Your task to perform on an android device: install app "Google Docs" Image 0: 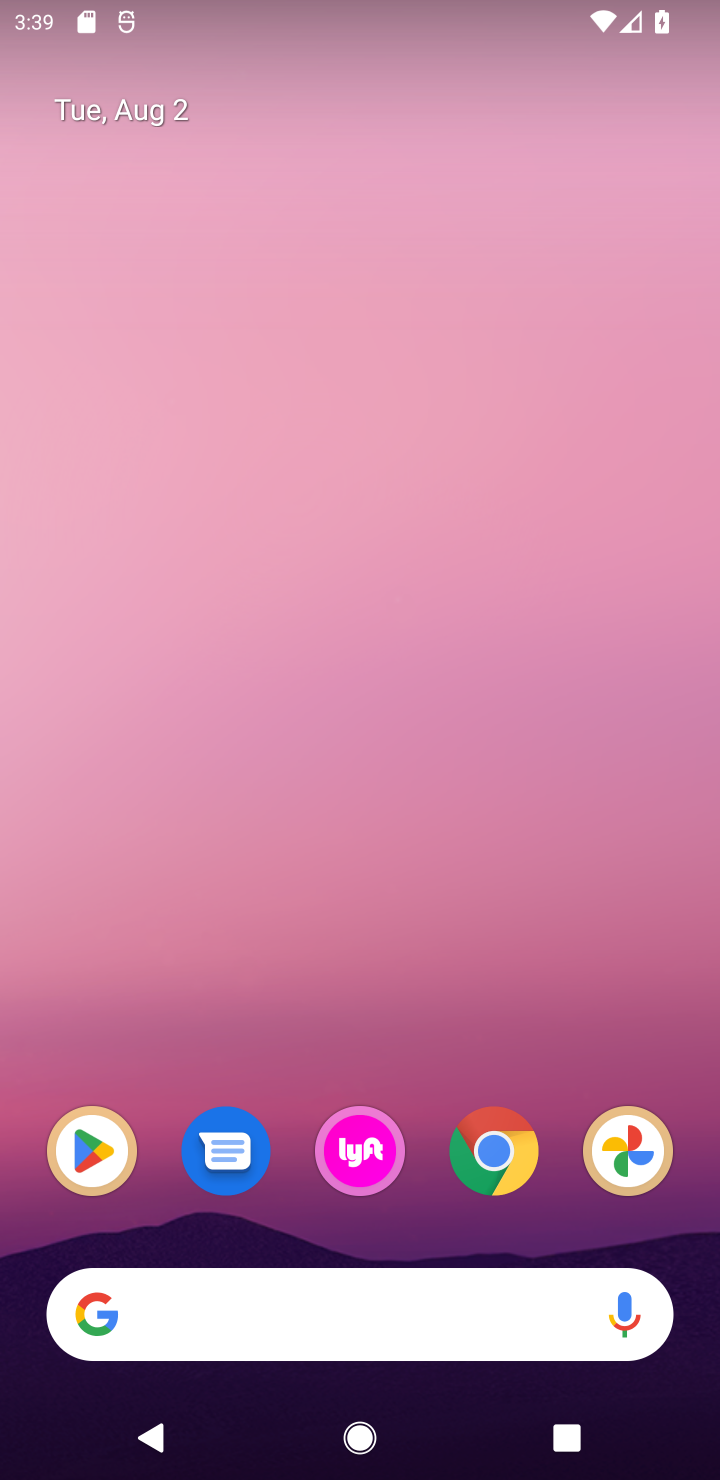
Step 0: drag from (442, 1455) to (330, 330)
Your task to perform on an android device: install app "Google Docs" Image 1: 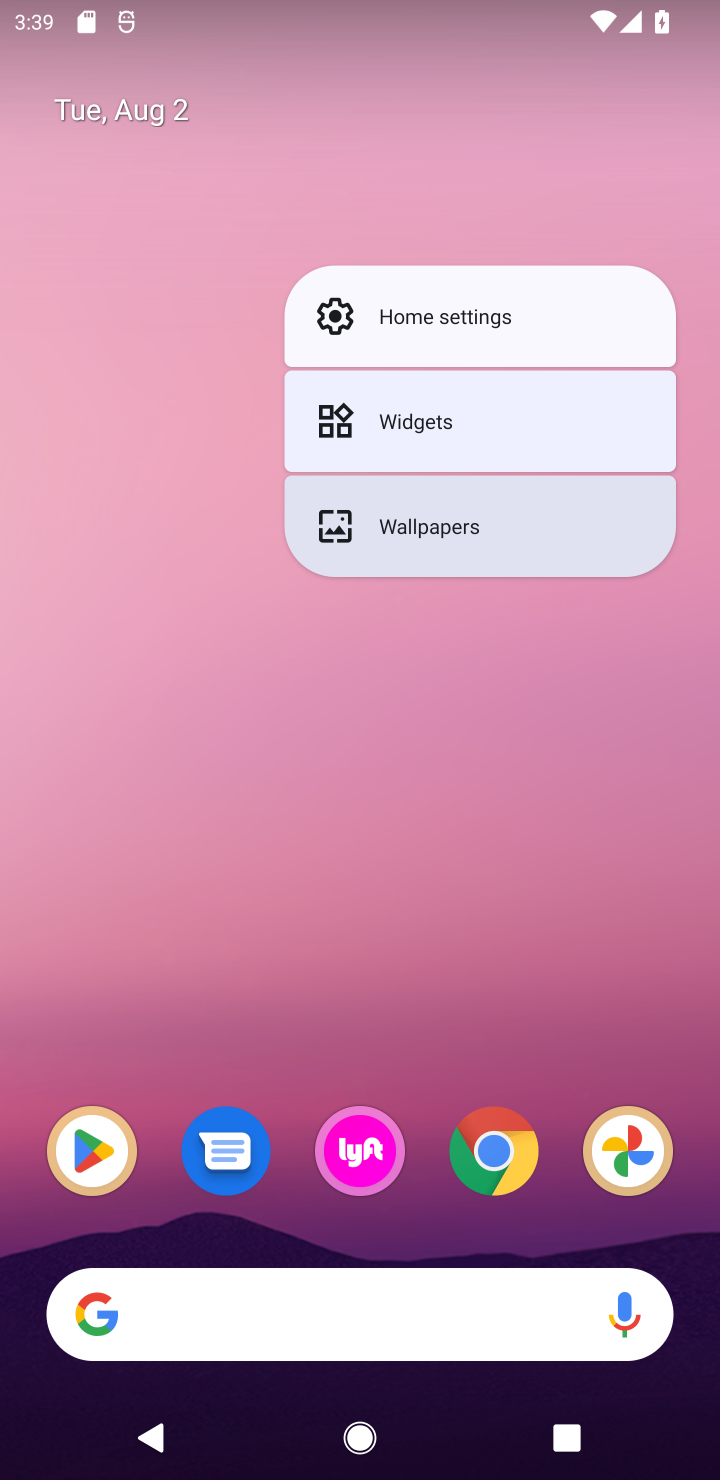
Step 1: click (460, 924)
Your task to perform on an android device: install app "Google Docs" Image 2: 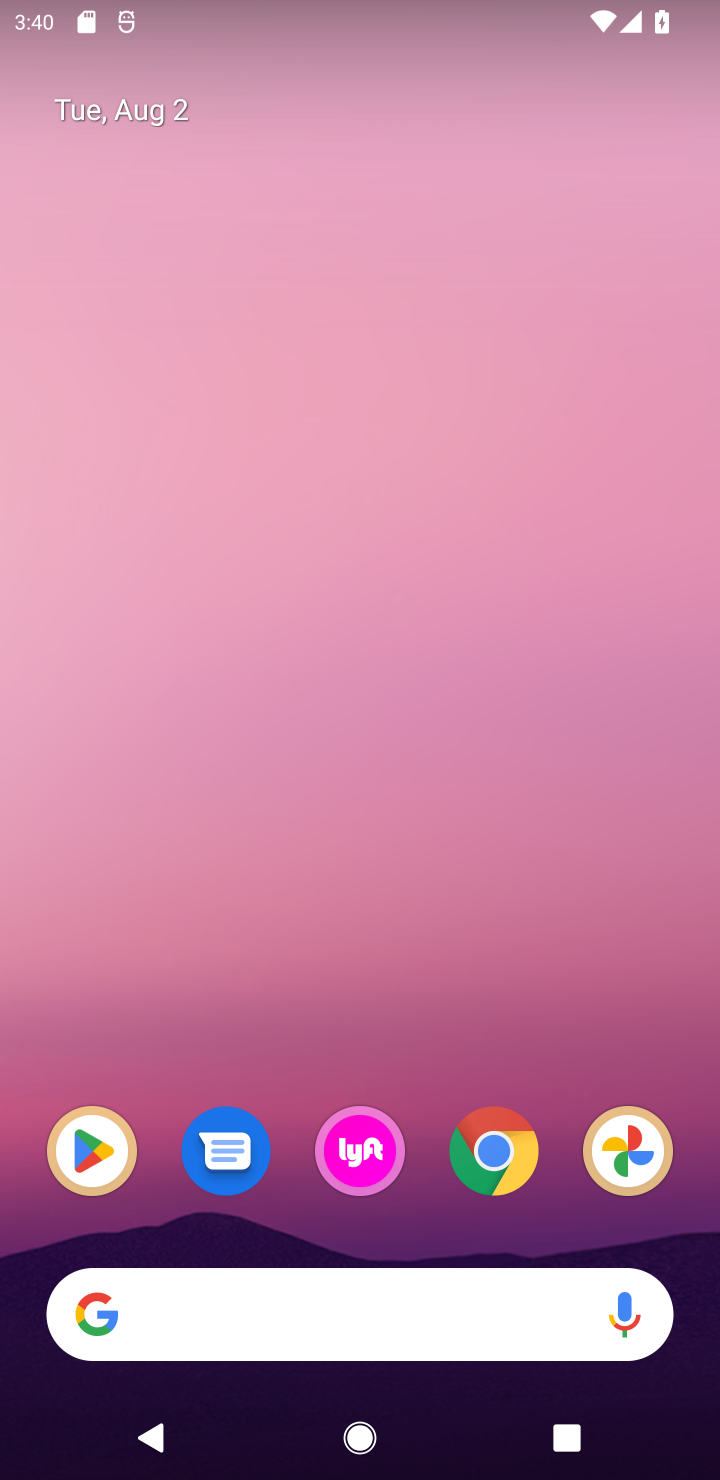
Step 2: drag from (419, 1447) to (420, 436)
Your task to perform on an android device: install app "Google Docs" Image 3: 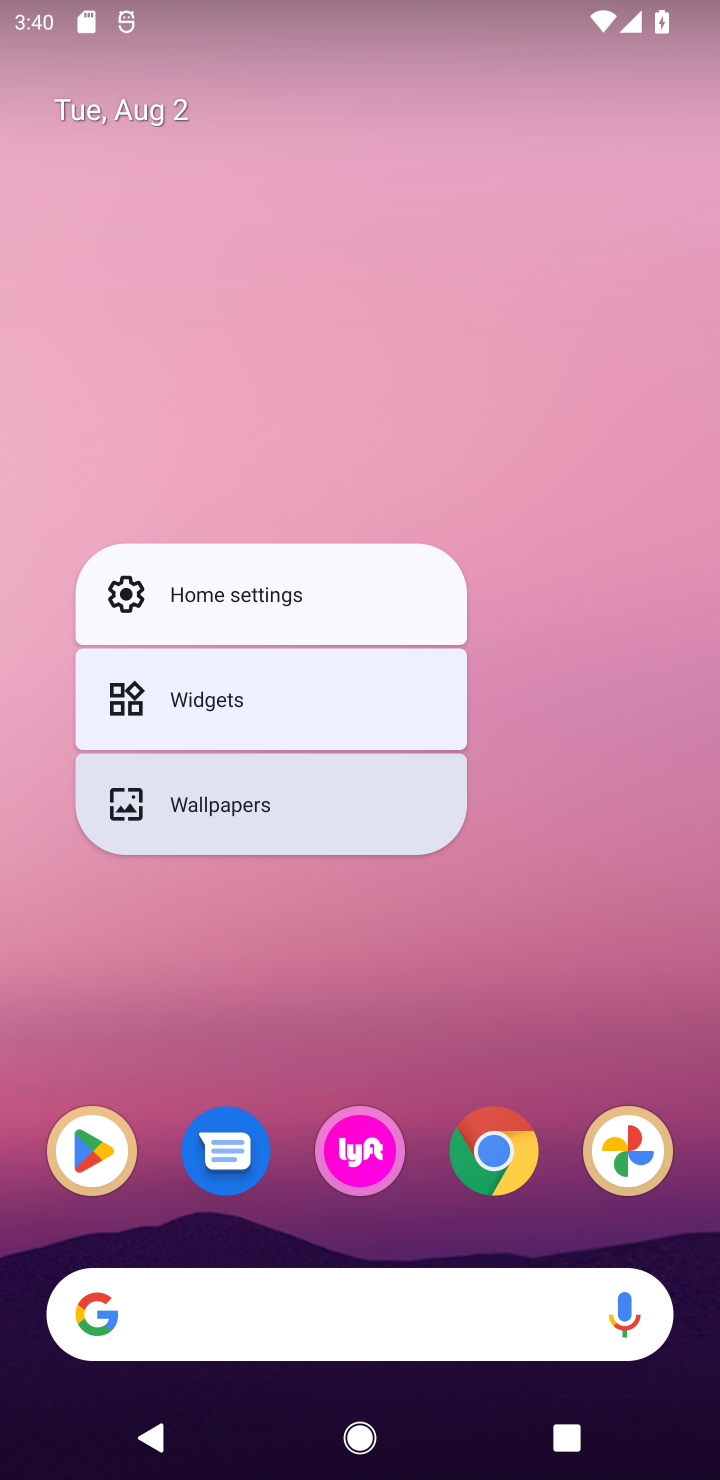
Step 3: click (462, 266)
Your task to perform on an android device: install app "Google Docs" Image 4: 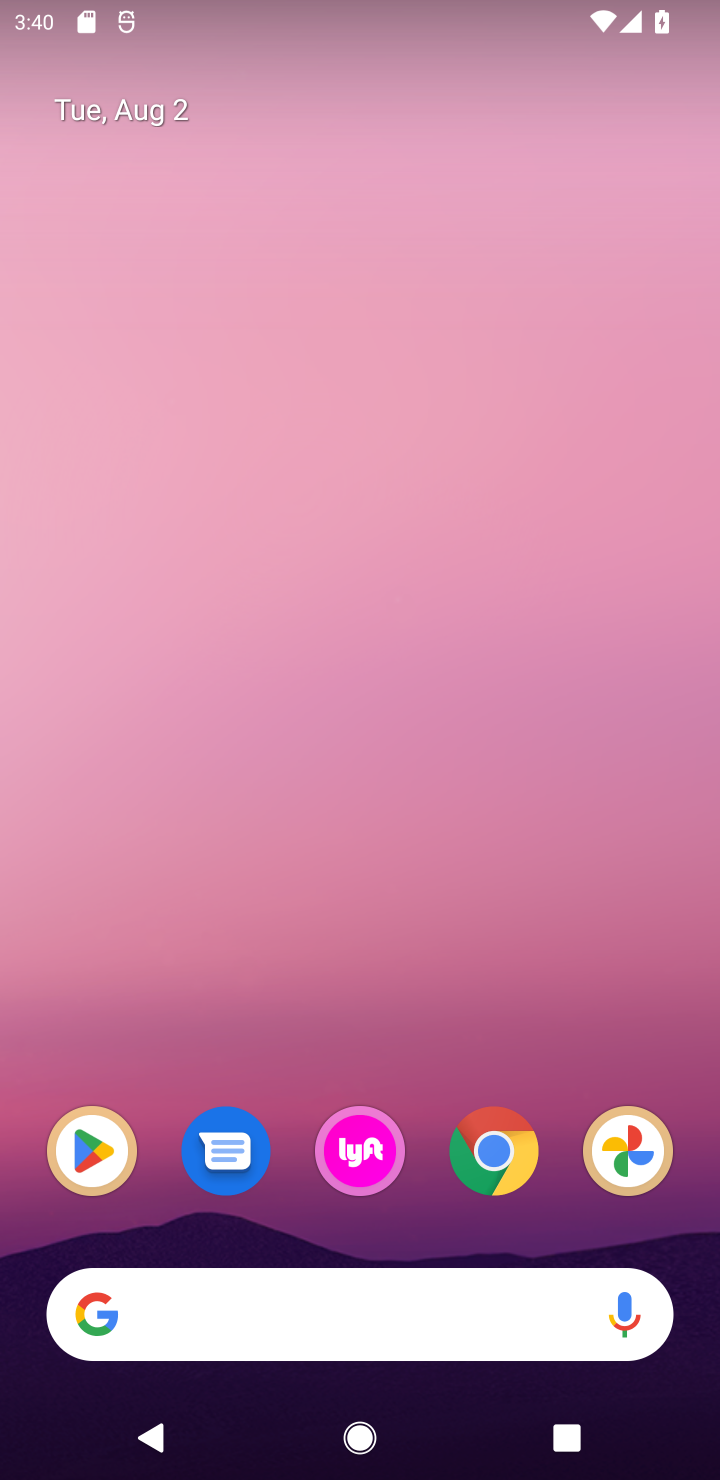
Step 4: drag from (422, 1243) to (414, 988)
Your task to perform on an android device: install app "Google Docs" Image 5: 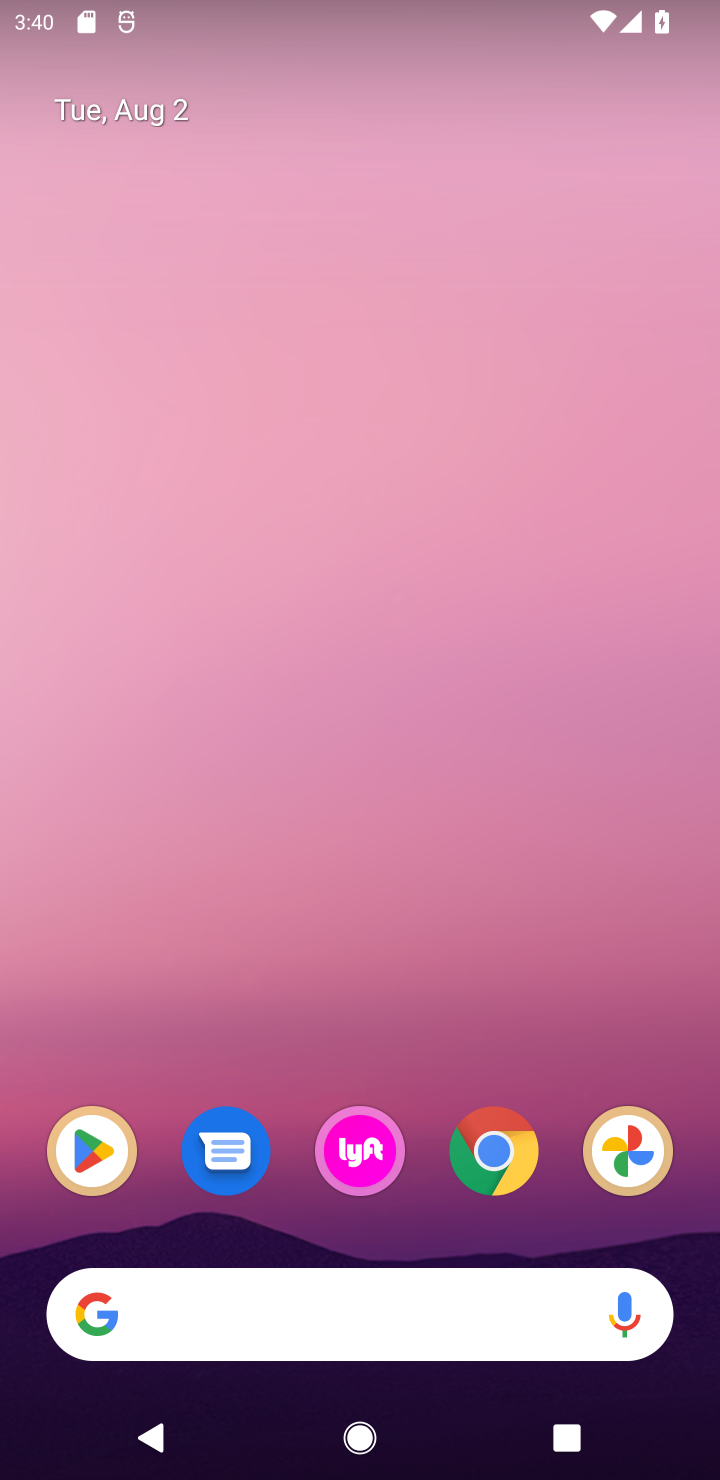
Step 5: drag from (402, 1471) to (352, 174)
Your task to perform on an android device: install app "Google Docs" Image 6: 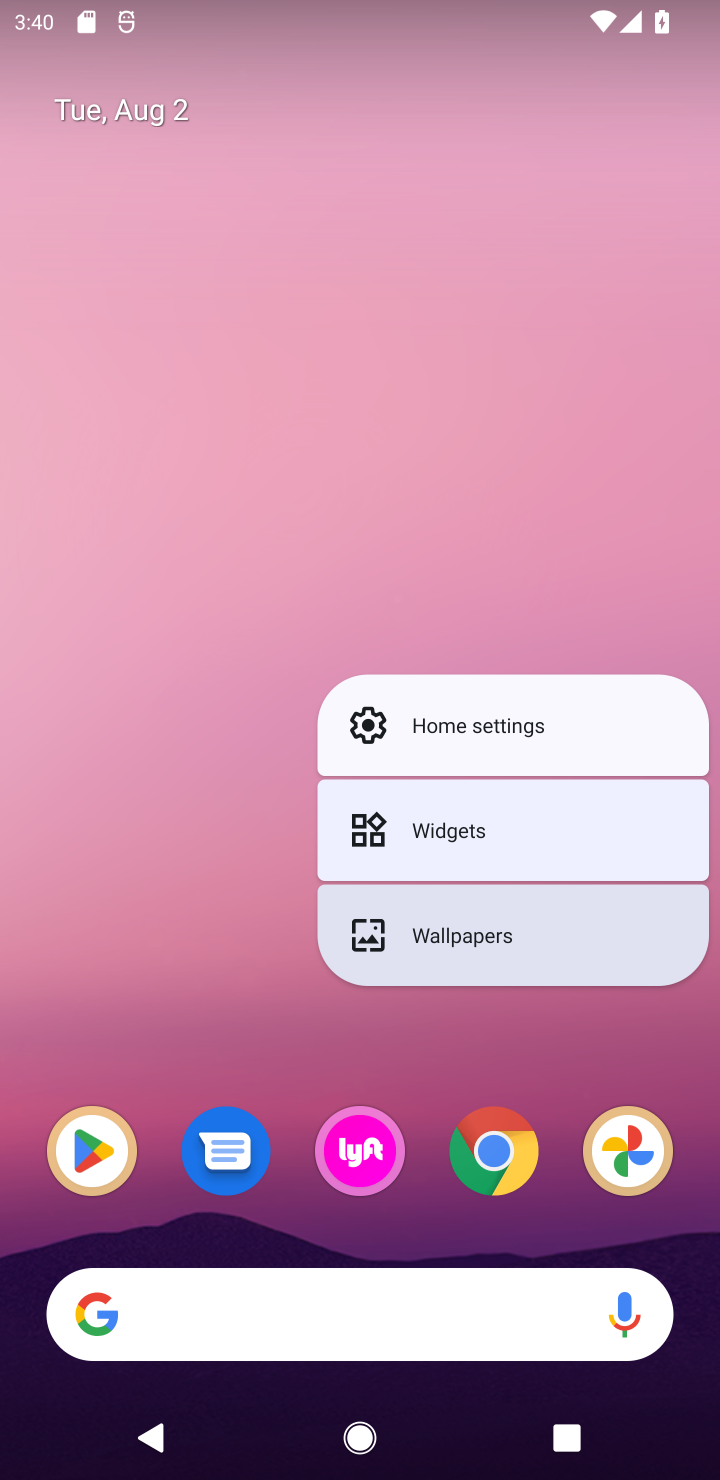
Step 6: click (297, 554)
Your task to perform on an android device: install app "Google Docs" Image 7: 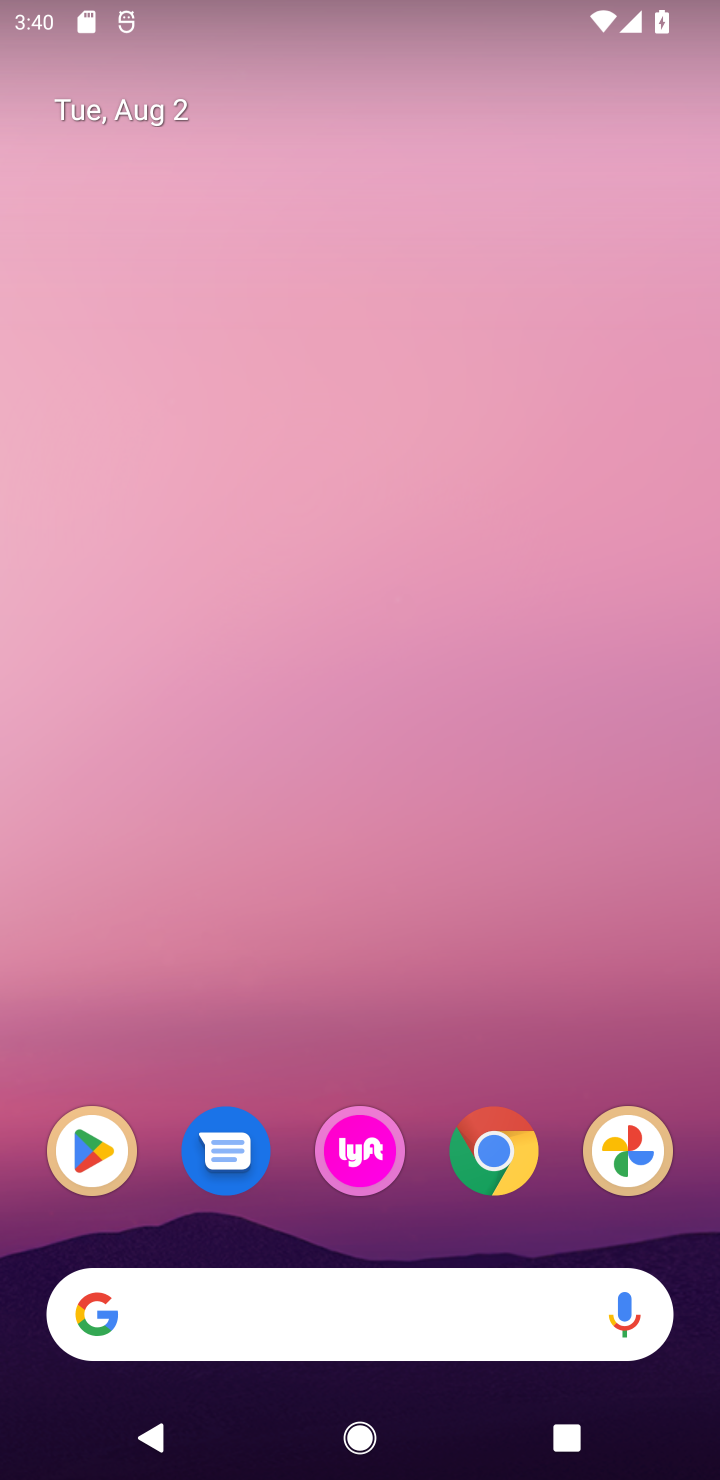
Step 7: drag from (407, 1331) to (418, 275)
Your task to perform on an android device: install app "Google Docs" Image 8: 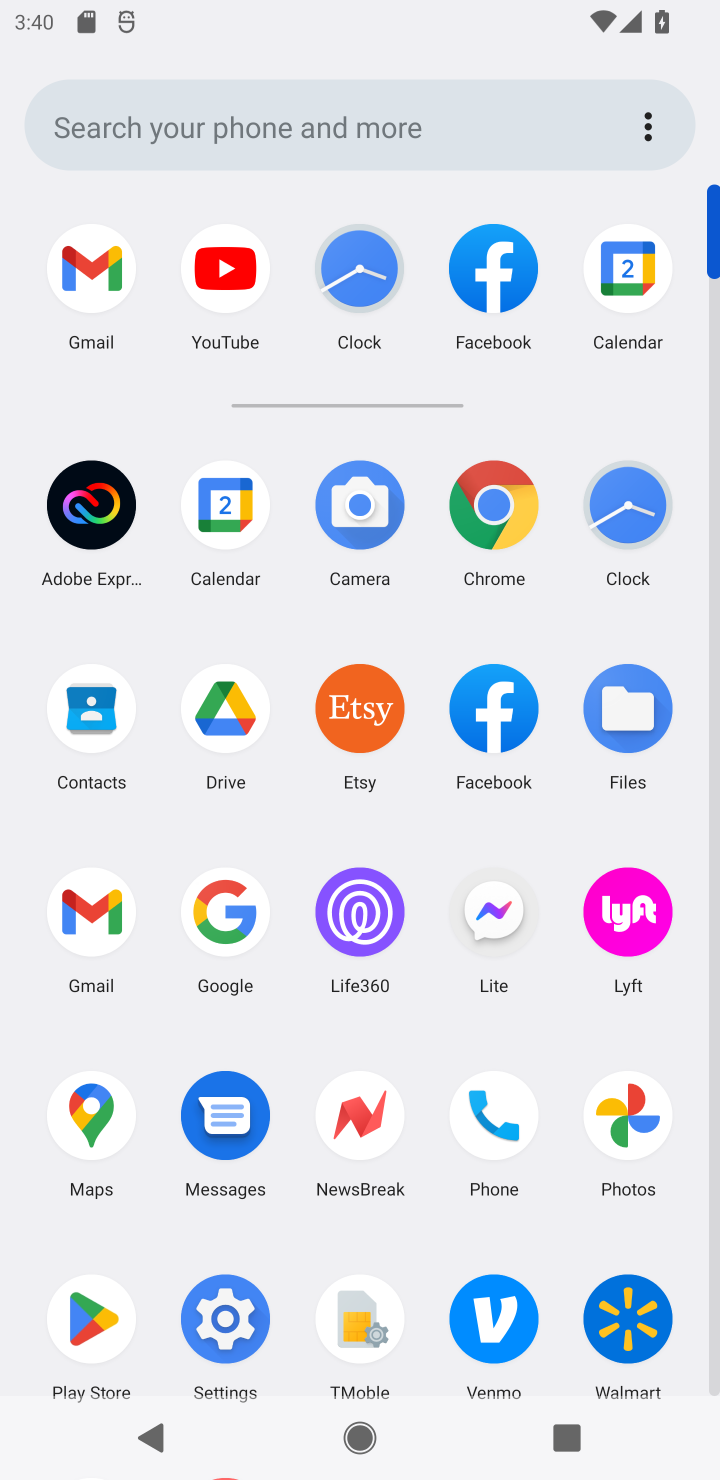
Step 8: click (100, 1304)
Your task to perform on an android device: install app "Google Docs" Image 9: 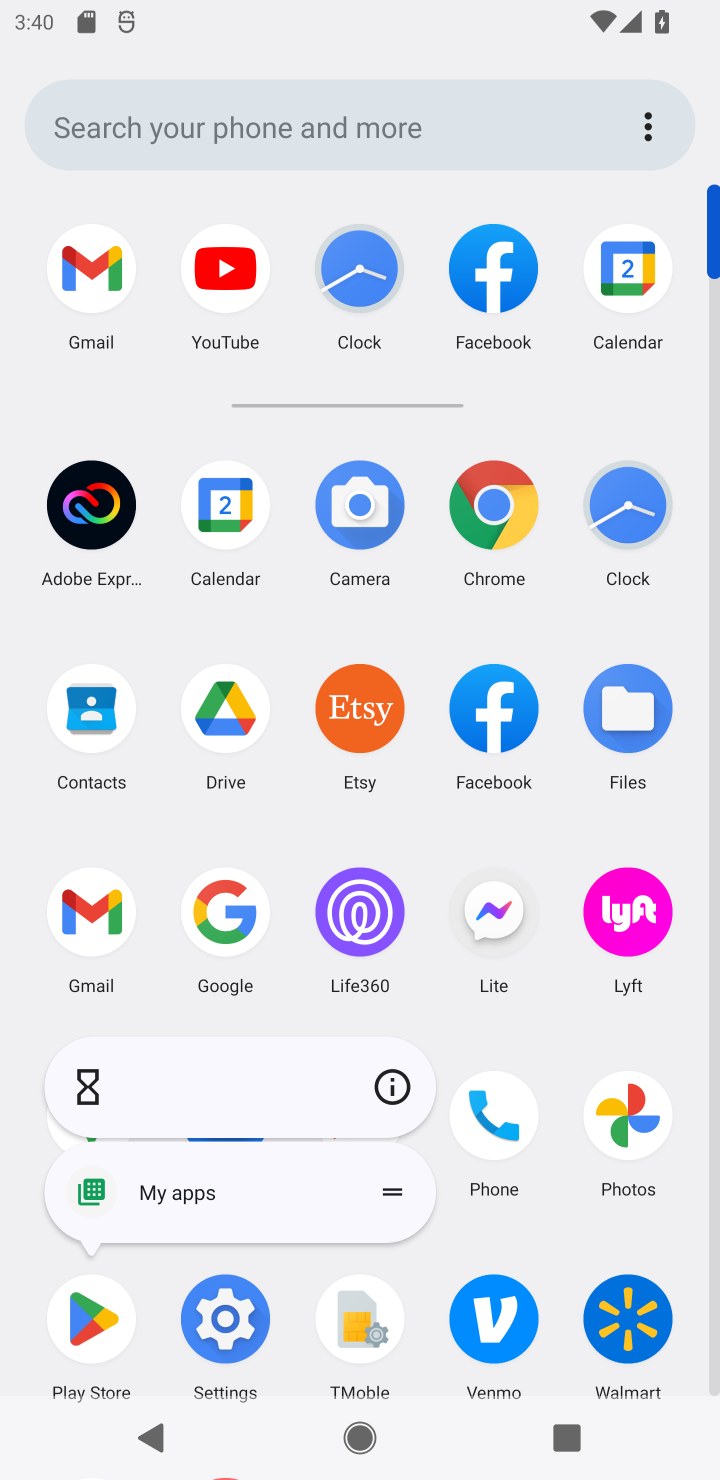
Step 9: click (94, 1316)
Your task to perform on an android device: install app "Google Docs" Image 10: 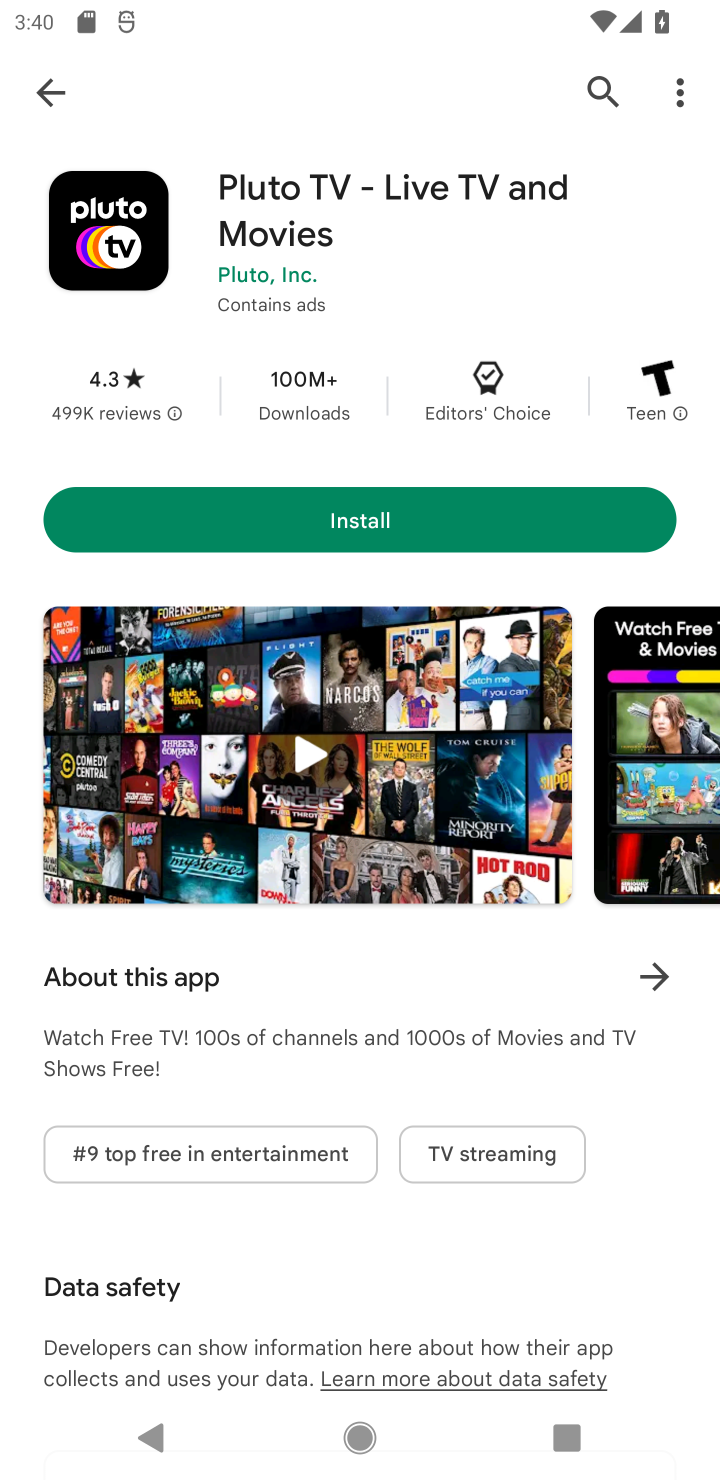
Step 10: click (603, 72)
Your task to perform on an android device: install app "Google Docs" Image 11: 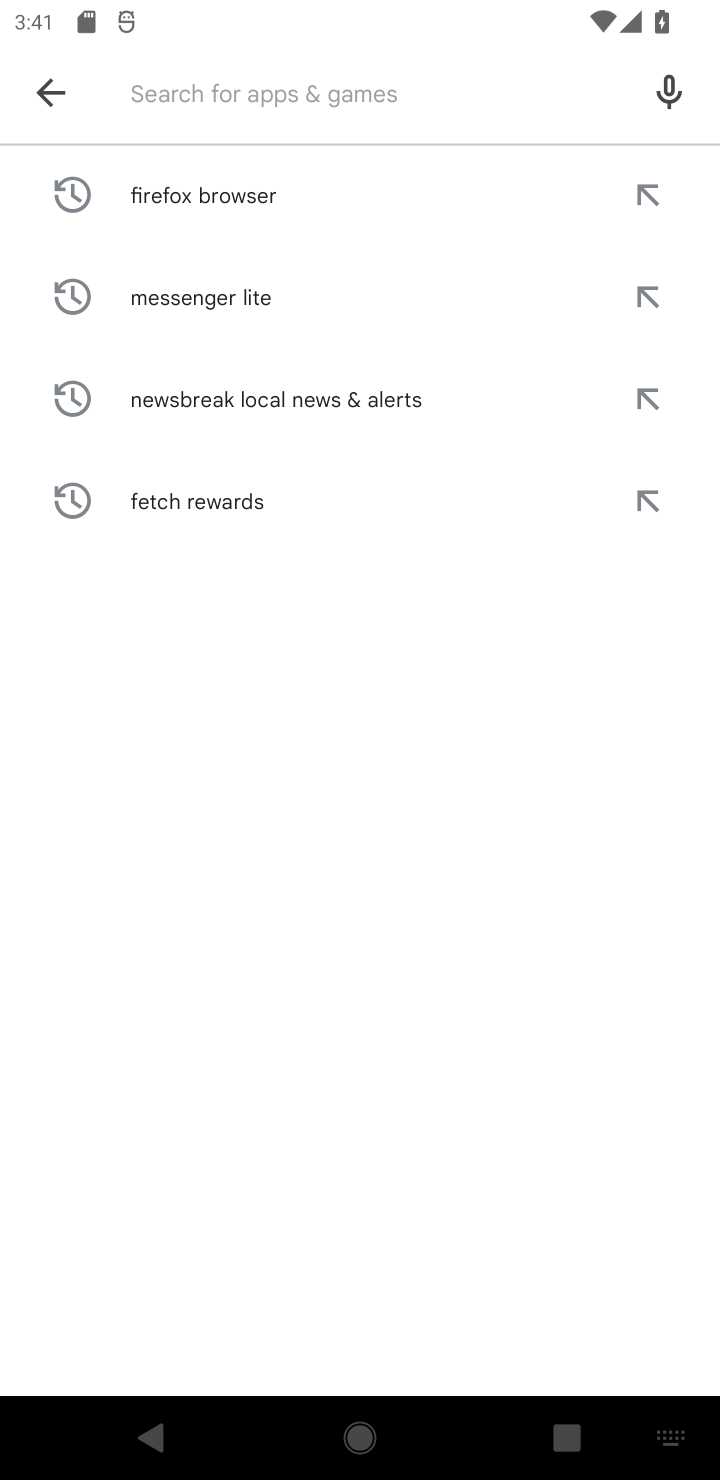
Step 11: type "Google Docs"
Your task to perform on an android device: install app "Google Docs" Image 12: 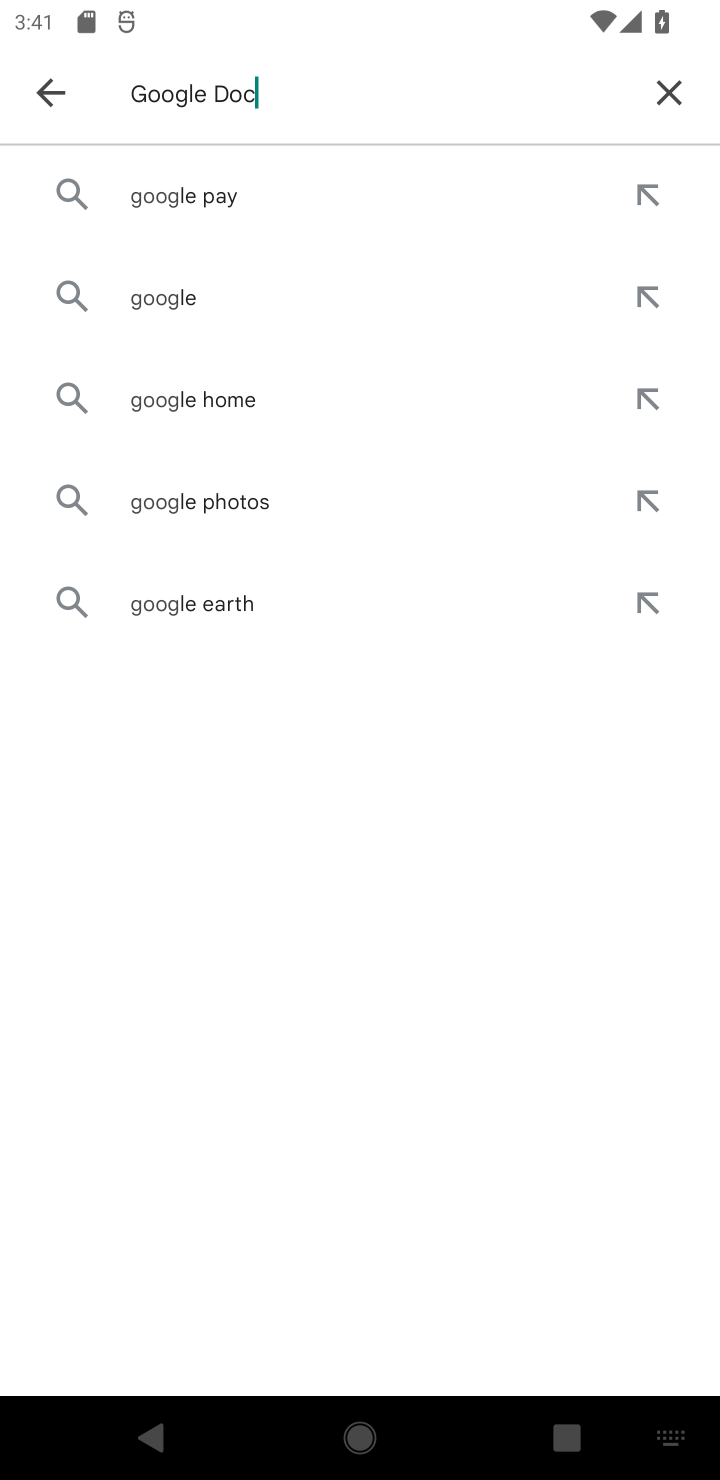
Step 12: type ""
Your task to perform on an android device: install app "Google Docs" Image 13: 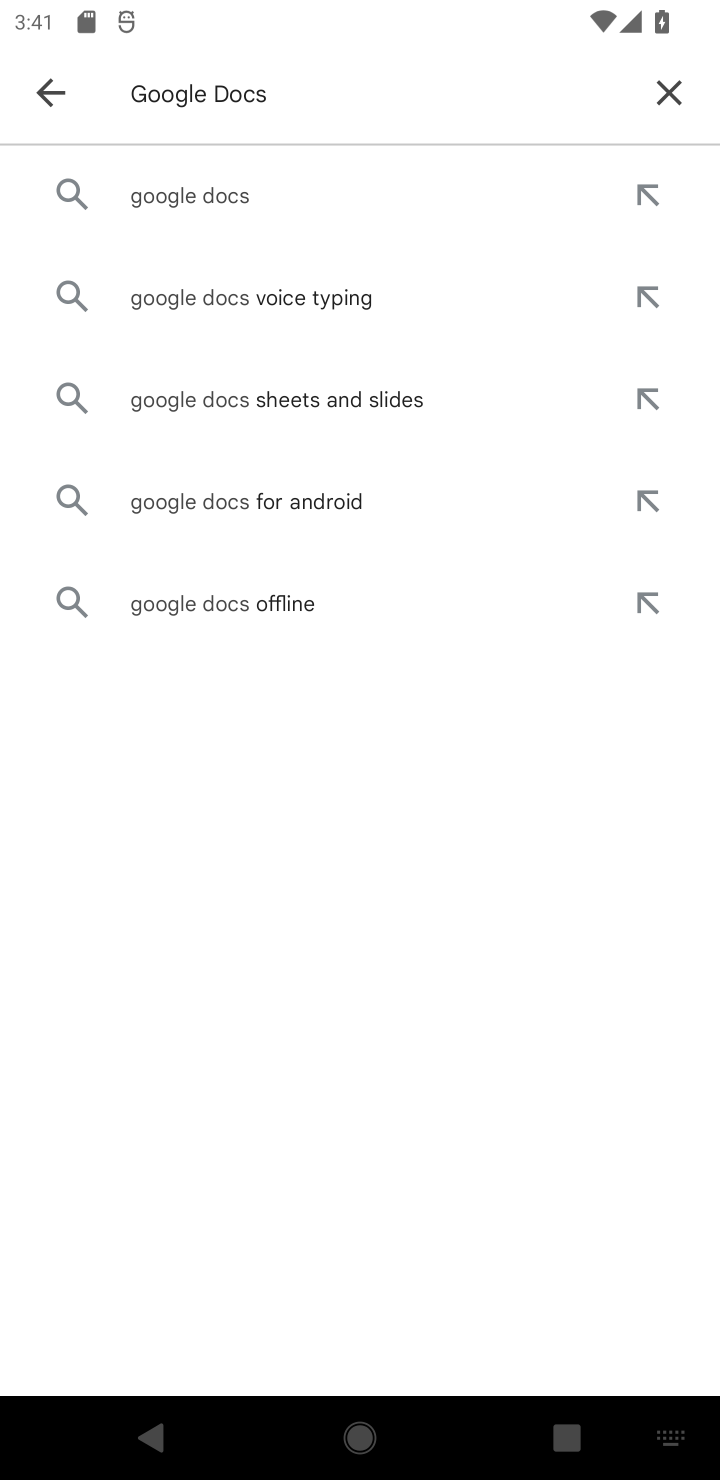
Step 13: click (199, 198)
Your task to perform on an android device: install app "Google Docs" Image 14: 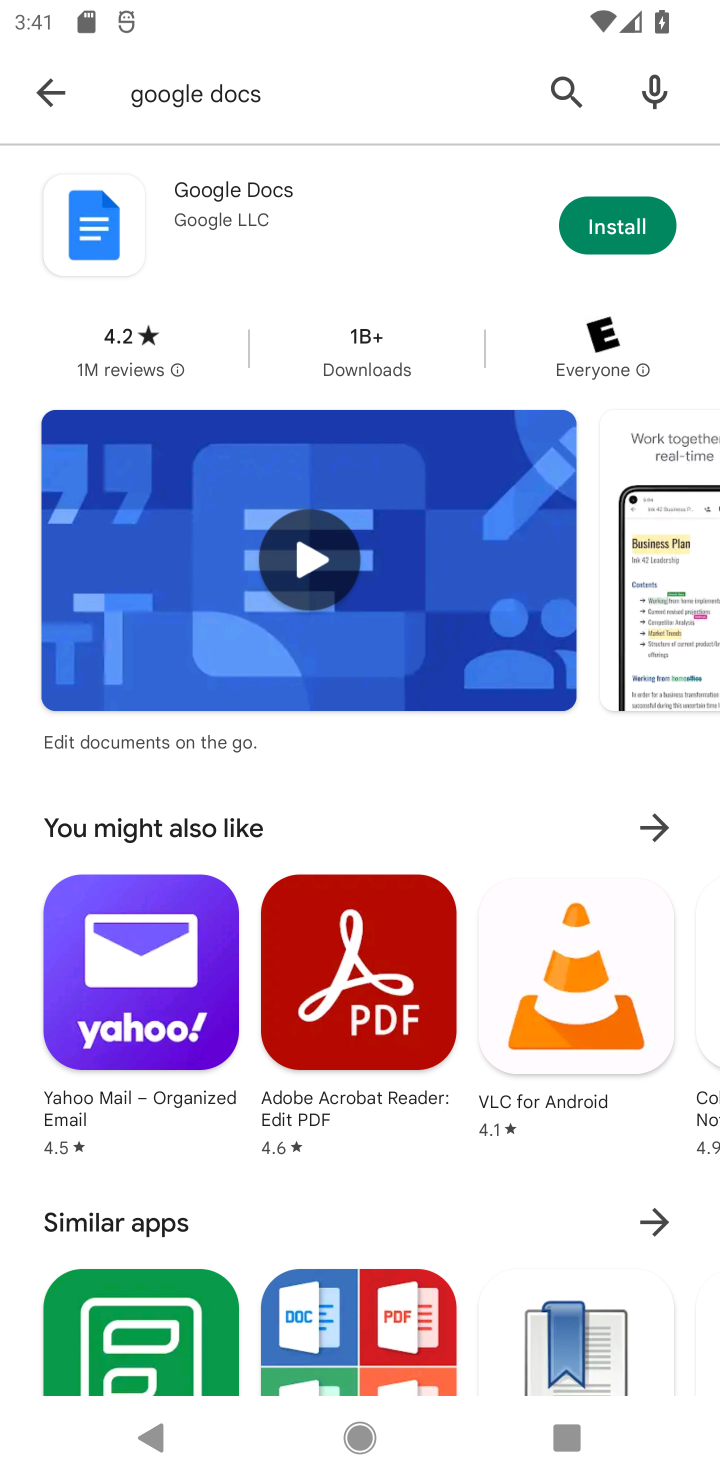
Step 14: click (633, 223)
Your task to perform on an android device: install app "Google Docs" Image 15: 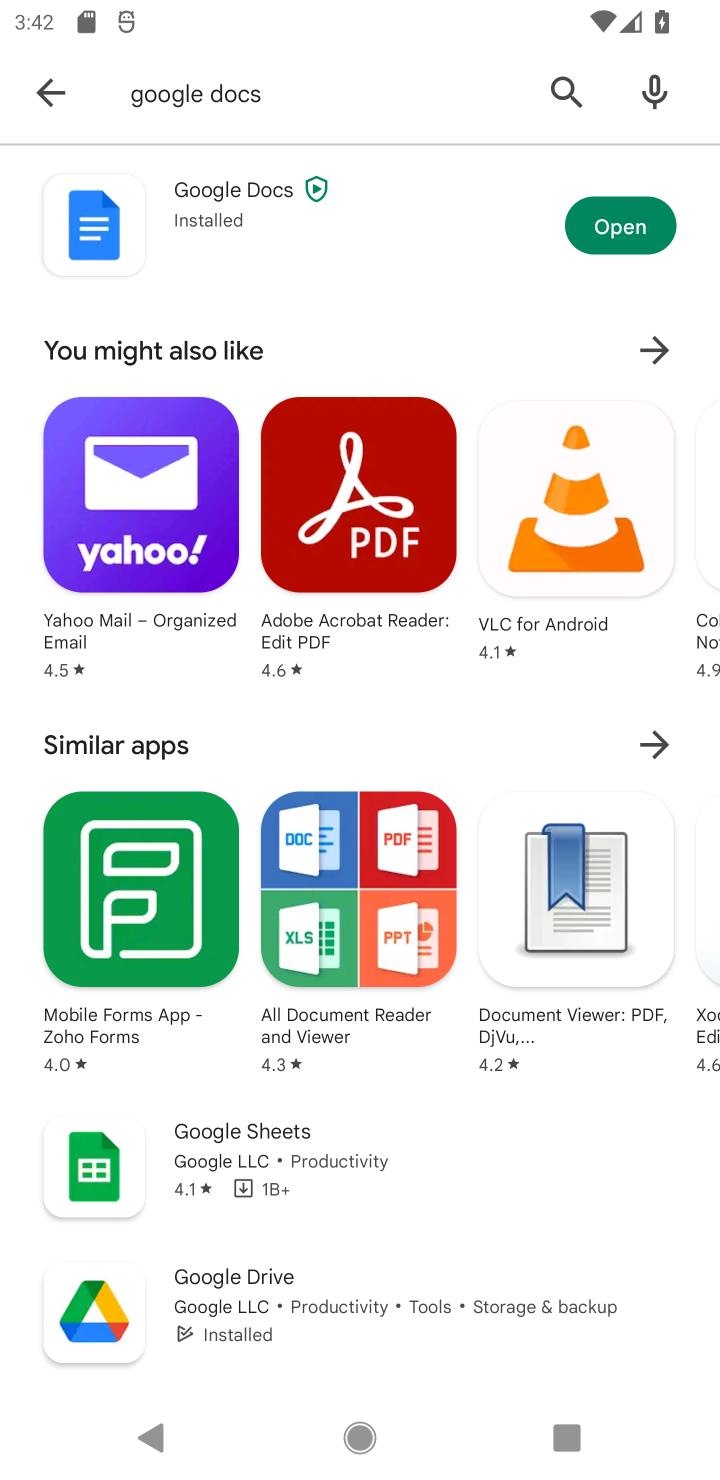
Step 15: task complete